Your task to perform on an android device: Open Google Maps and go to "Timeline" Image 0: 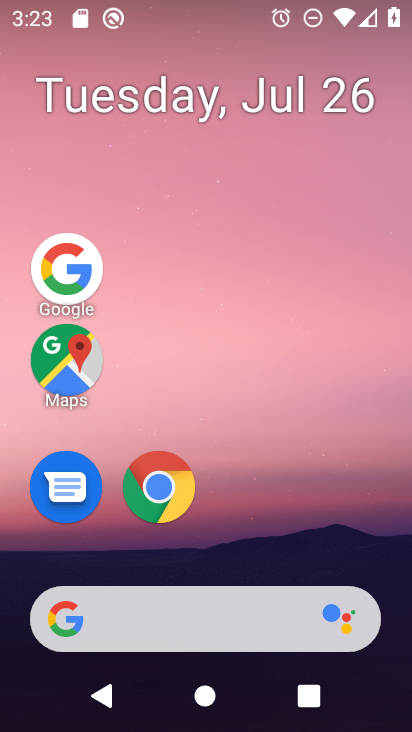
Step 0: drag from (244, 569) to (332, 108)
Your task to perform on an android device: Open Google Maps and go to "Timeline" Image 1: 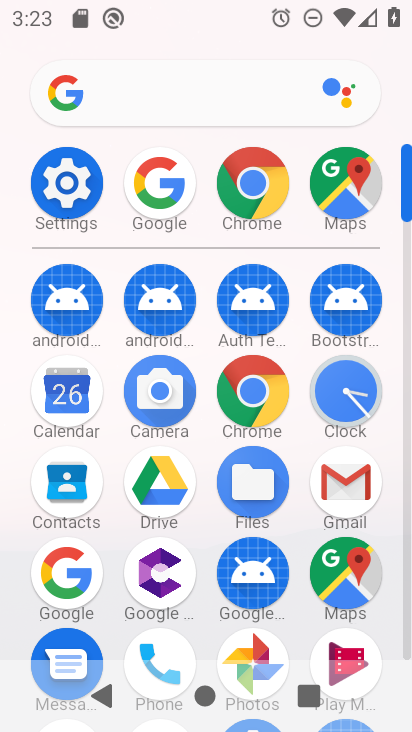
Step 1: drag from (243, 179) to (253, 110)
Your task to perform on an android device: Open Google Maps and go to "Timeline" Image 2: 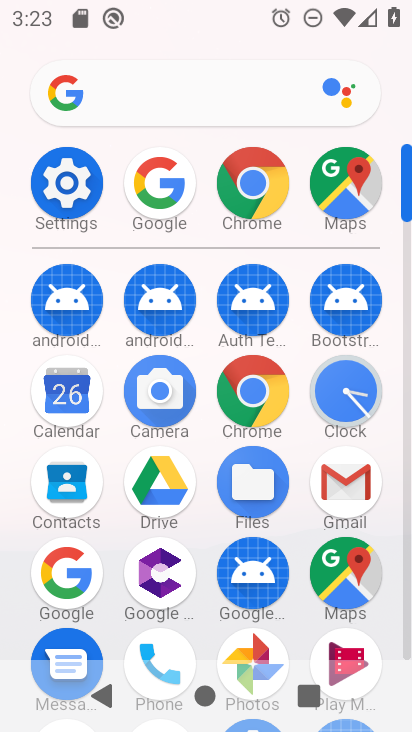
Step 2: drag from (173, 478) to (217, 6)
Your task to perform on an android device: Open Google Maps and go to "Timeline" Image 3: 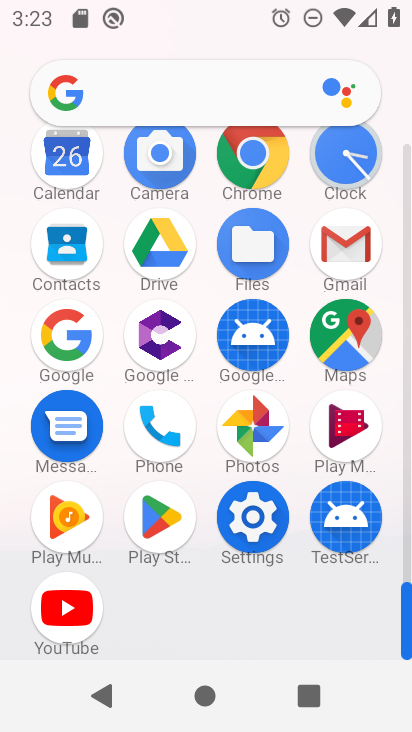
Step 3: click (355, 357)
Your task to perform on an android device: Open Google Maps and go to "Timeline" Image 4: 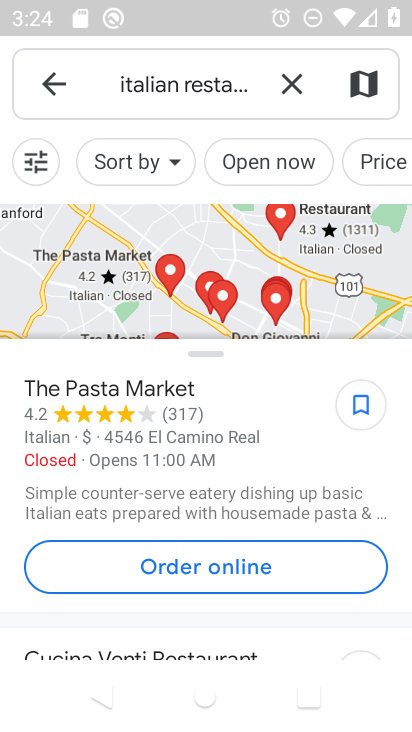
Step 4: click (50, 88)
Your task to perform on an android device: Open Google Maps and go to "Timeline" Image 5: 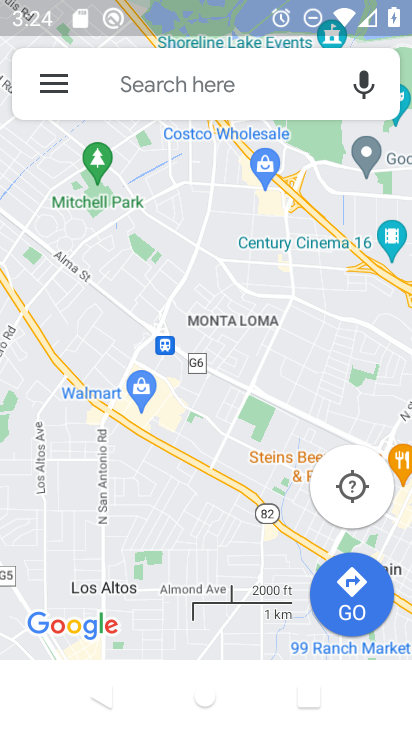
Step 5: click (55, 91)
Your task to perform on an android device: Open Google Maps and go to "Timeline" Image 6: 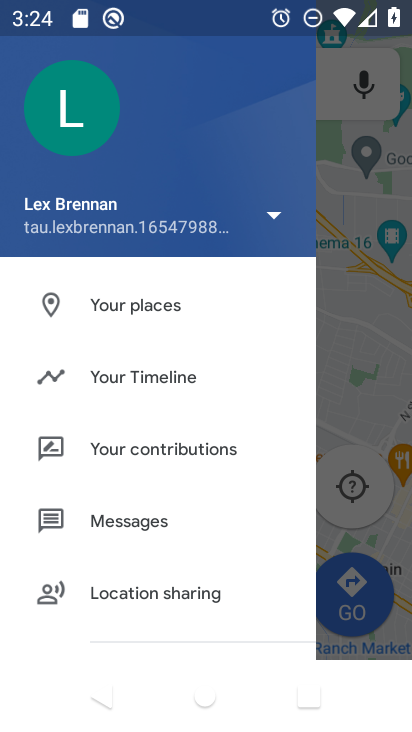
Step 6: drag from (137, 481) to (137, 416)
Your task to perform on an android device: Open Google Maps and go to "Timeline" Image 7: 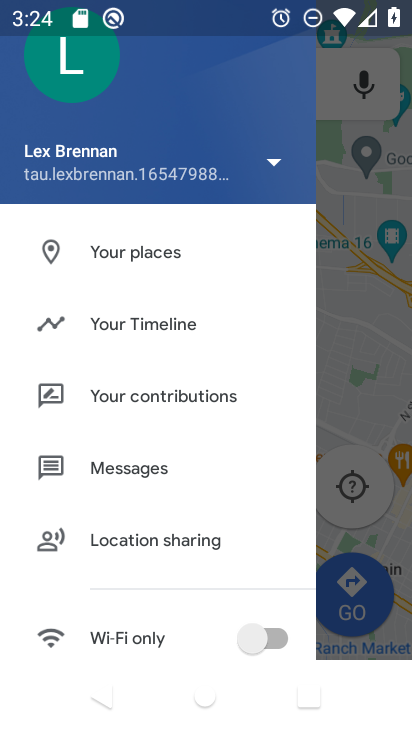
Step 7: click (127, 339)
Your task to perform on an android device: Open Google Maps and go to "Timeline" Image 8: 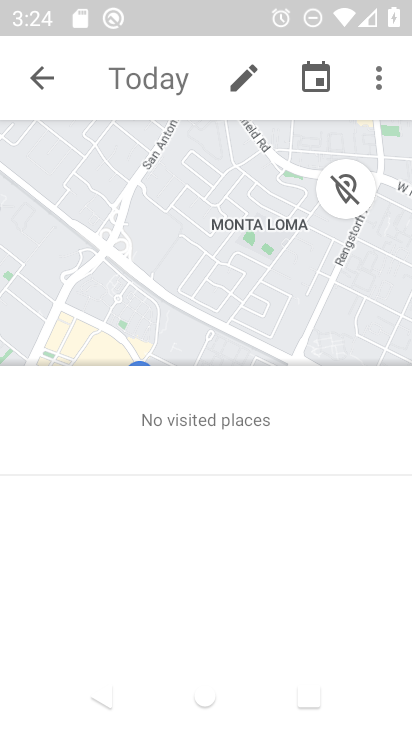
Step 8: task complete